Your task to perform on an android device: add a contact in the contacts app Image 0: 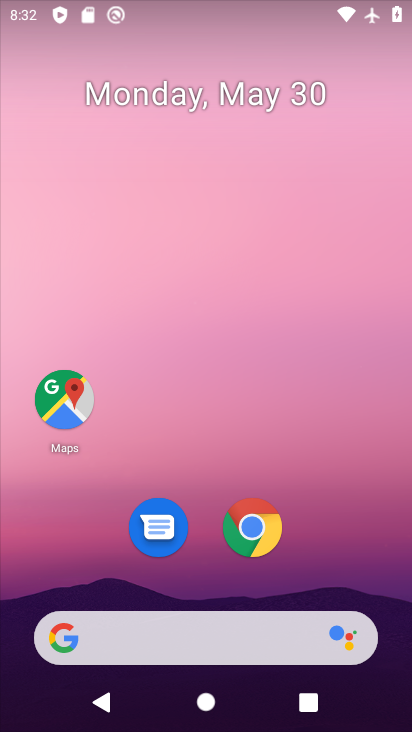
Step 0: drag from (314, 579) to (293, 4)
Your task to perform on an android device: add a contact in the contacts app Image 1: 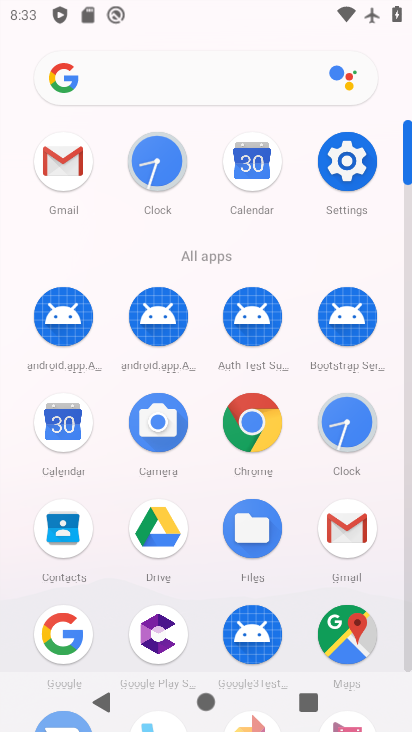
Step 1: click (65, 535)
Your task to perform on an android device: add a contact in the contacts app Image 2: 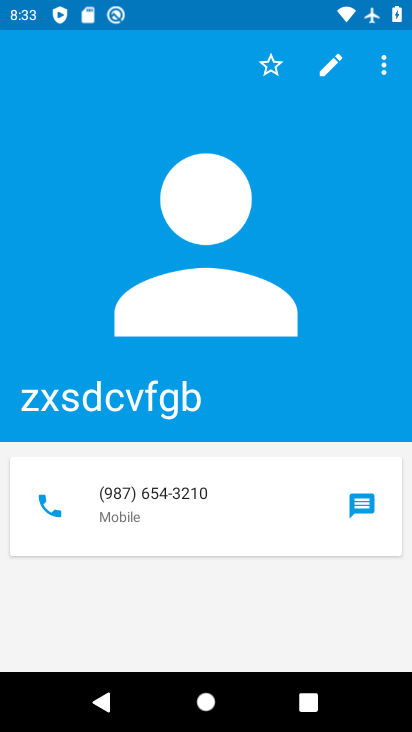
Step 2: press back button
Your task to perform on an android device: add a contact in the contacts app Image 3: 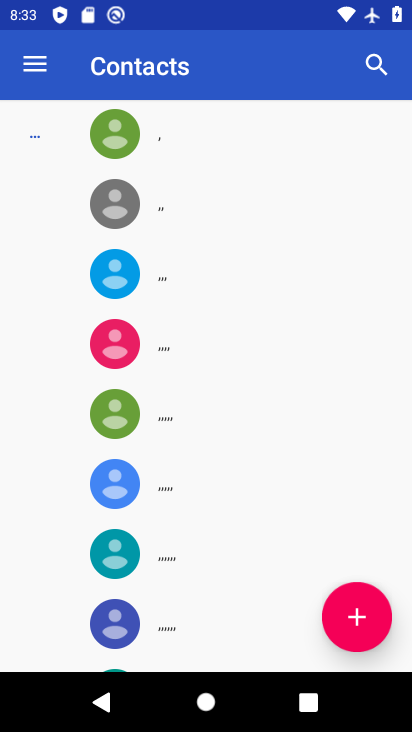
Step 3: click (358, 604)
Your task to perform on an android device: add a contact in the contacts app Image 4: 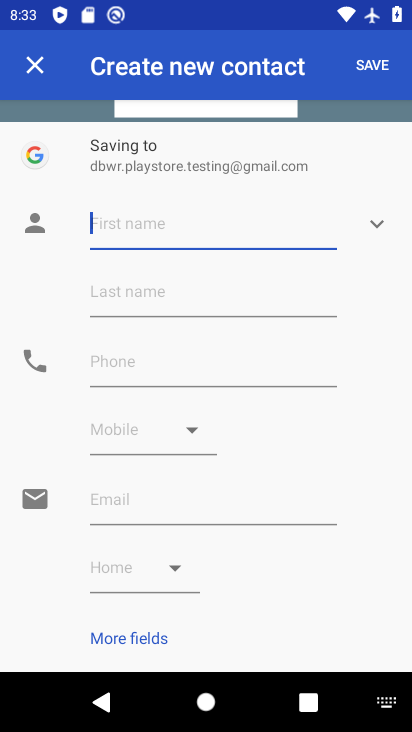
Step 4: type "bnmmnbbnm"
Your task to perform on an android device: add a contact in the contacts app Image 5: 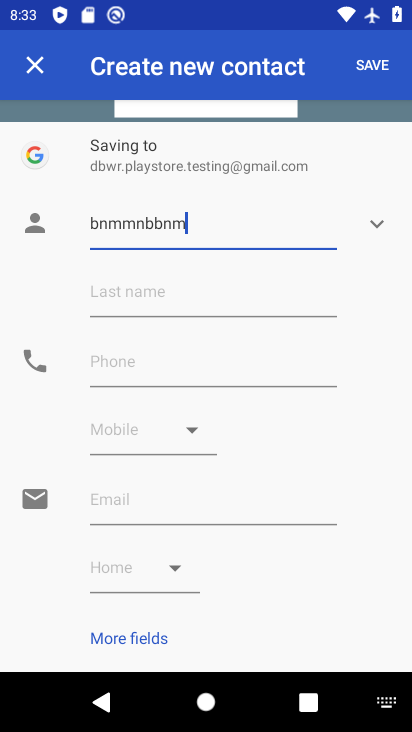
Step 5: click (112, 378)
Your task to perform on an android device: add a contact in the contacts app Image 6: 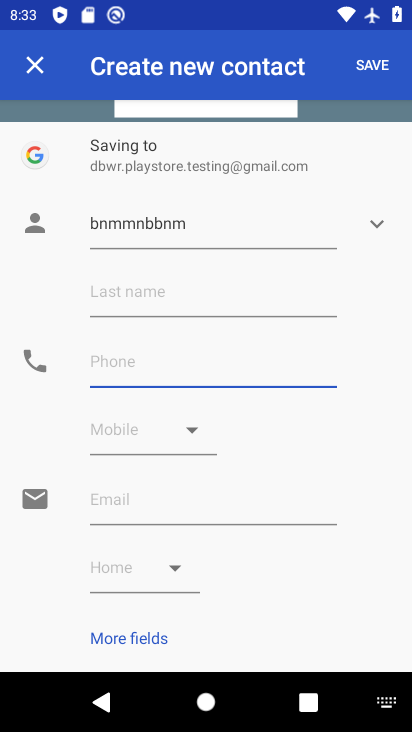
Step 6: type "9876789878"
Your task to perform on an android device: add a contact in the contacts app Image 7: 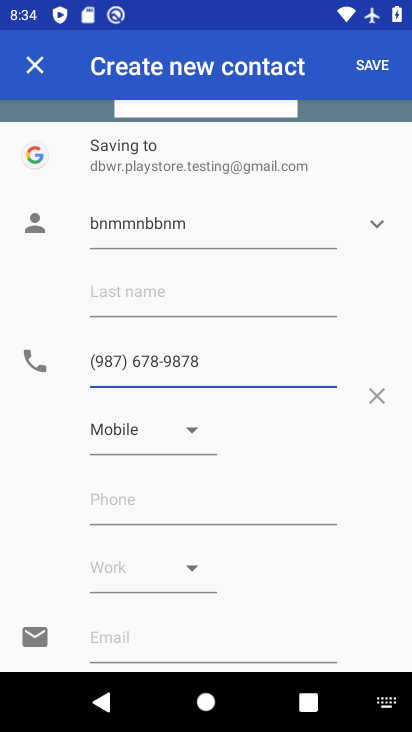
Step 7: click (383, 54)
Your task to perform on an android device: add a contact in the contacts app Image 8: 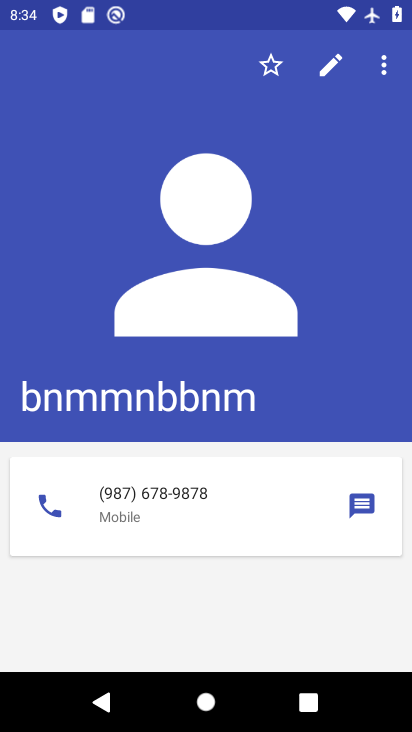
Step 8: task complete